Your task to perform on an android device: Search for 3d printer on AliExpress Image 0: 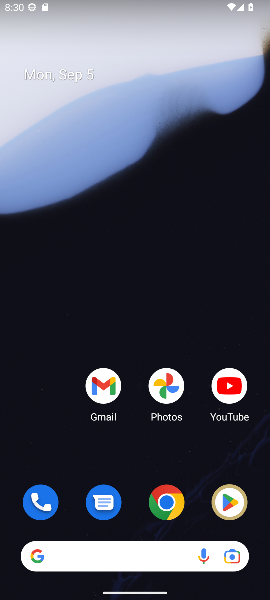
Step 0: drag from (67, 459) to (68, 42)
Your task to perform on an android device: Search for 3d printer on AliExpress Image 1: 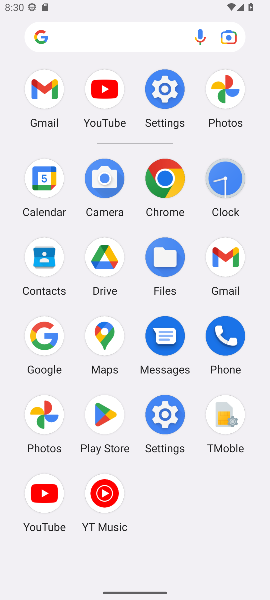
Step 1: click (43, 329)
Your task to perform on an android device: Search for 3d printer on AliExpress Image 2: 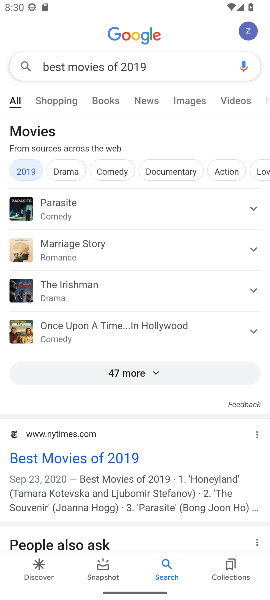
Step 2: press back button
Your task to perform on an android device: Search for 3d printer on AliExpress Image 3: 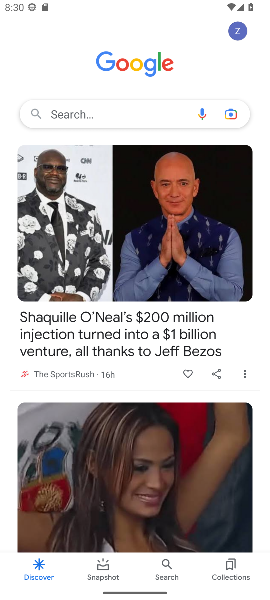
Step 3: click (63, 106)
Your task to perform on an android device: Search for 3d printer on AliExpress Image 4: 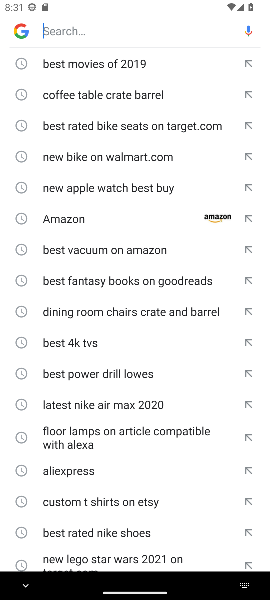
Step 4: type "3d printer on AliExpress"
Your task to perform on an android device: Search for 3d printer on AliExpress Image 5: 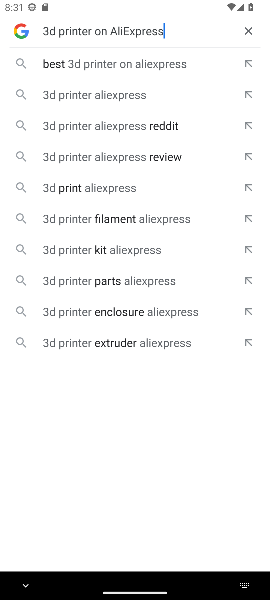
Step 5: click (105, 68)
Your task to perform on an android device: Search for 3d printer on AliExpress Image 6: 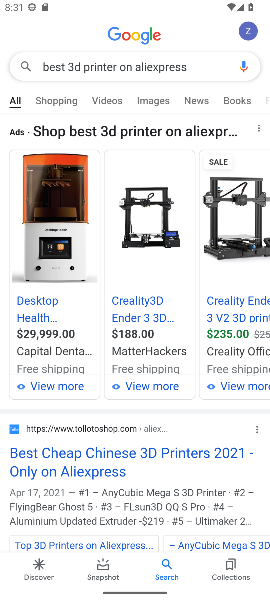
Step 6: task complete